Your task to perform on an android device: check the backup settings in the google photos Image 0: 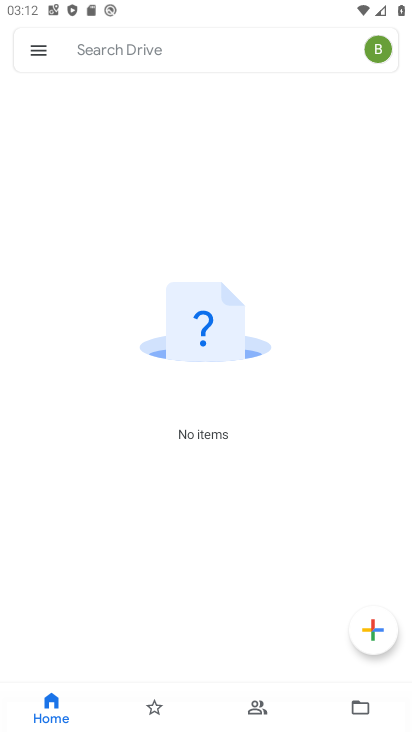
Step 0: press back button
Your task to perform on an android device: check the backup settings in the google photos Image 1: 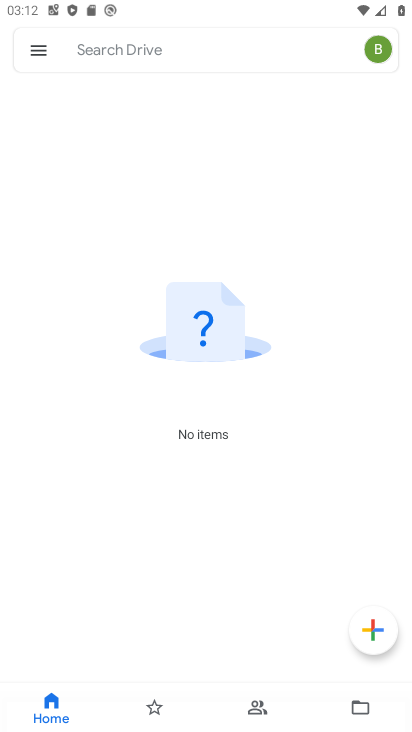
Step 1: press back button
Your task to perform on an android device: check the backup settings in the google photos Image 2: 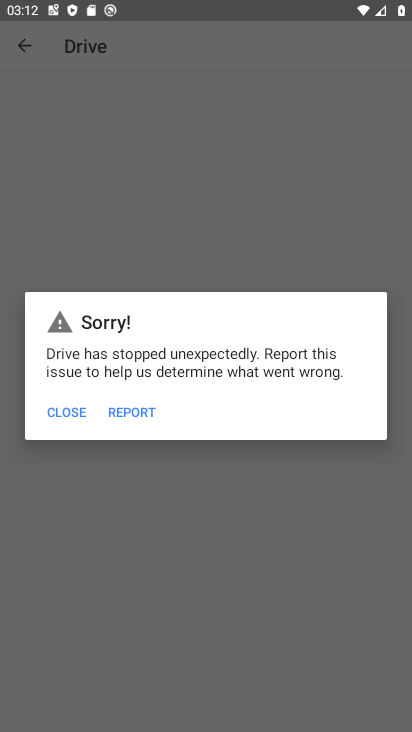
Step 2: click (60, 406)
Your task to perform on an android device: check the backup settings in the google photos Image 3: 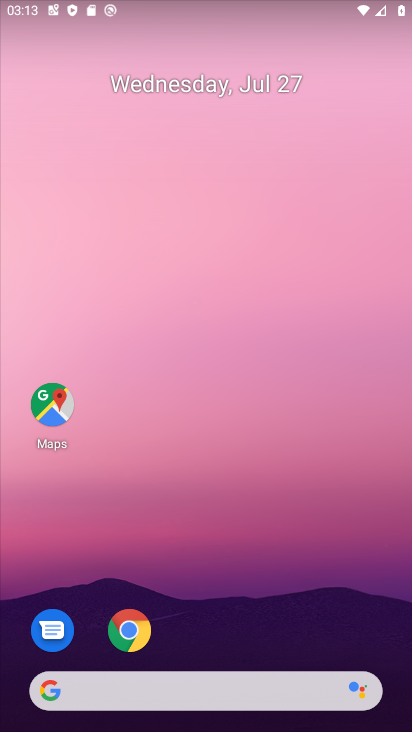
Step 3: drag from (197, 184) to (183, 96)
Your task to perform on an android device: check the backup settings in the google photos Image 4: 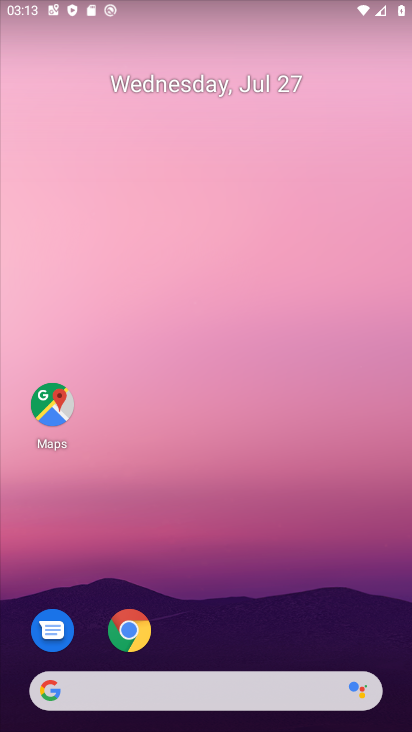
Step 4: drag from (237, 487) to (170, 74)
Your task to perform on an android device: check the backup settings in the google photos Image 5: 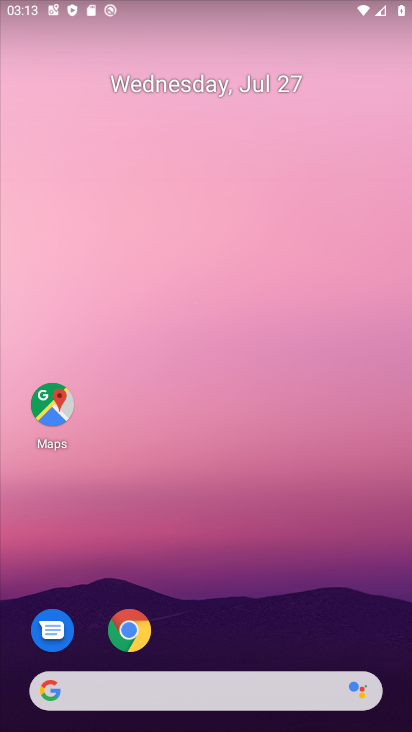
Step 5: drag from (222, 403) to (222, 59)
Your task to perform on an android device: check the backup settings in the google photos Image 6: 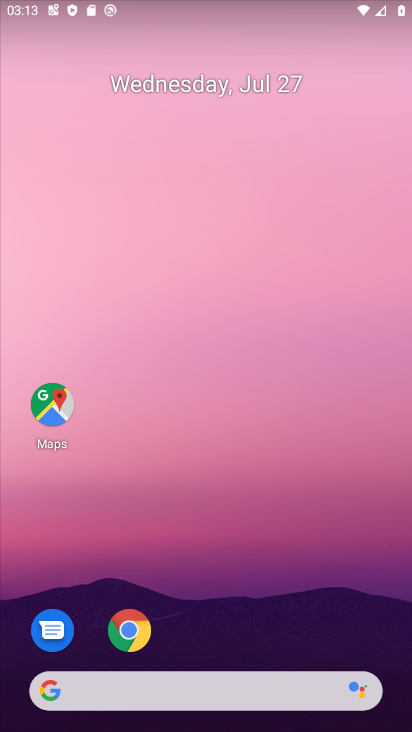
Step 6: drag from (288, 509) to (233, 15)
Your task to perform on an android device: check the backup settings in the google photos Image 7: 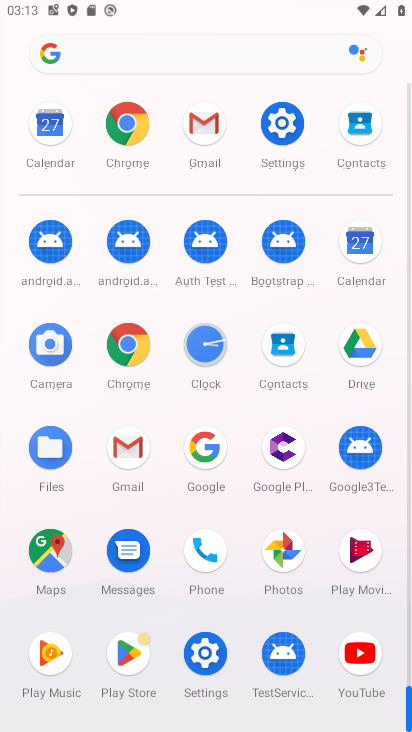
Step 7: drag from (179, 521) to (125, 3)
Your task to perform on an android device: check the backup settings in the google photos Image 8: 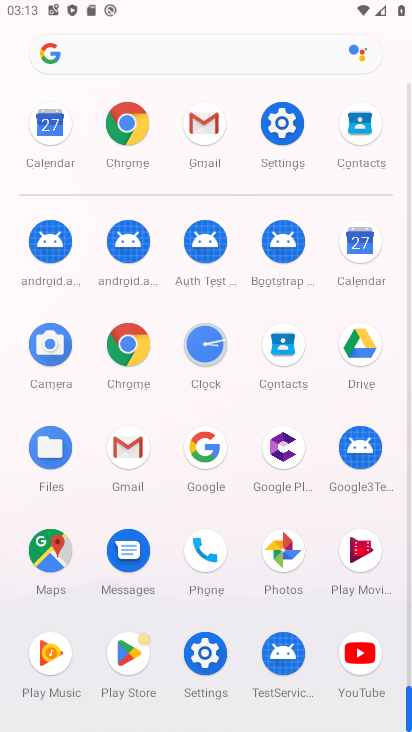
Step 8: click (284, 528)
Your task to perform on an android device: check the backup settings in the google photos Image 9: 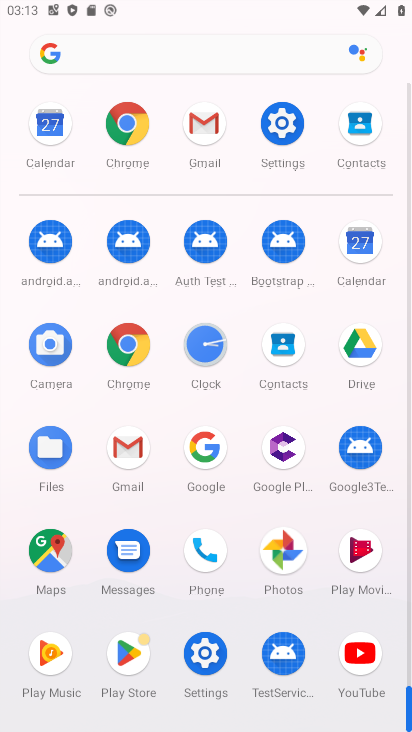
Step 9: click (277, 549)
Your task to perform on an android device: check the backup settings in the google photos Image 10: 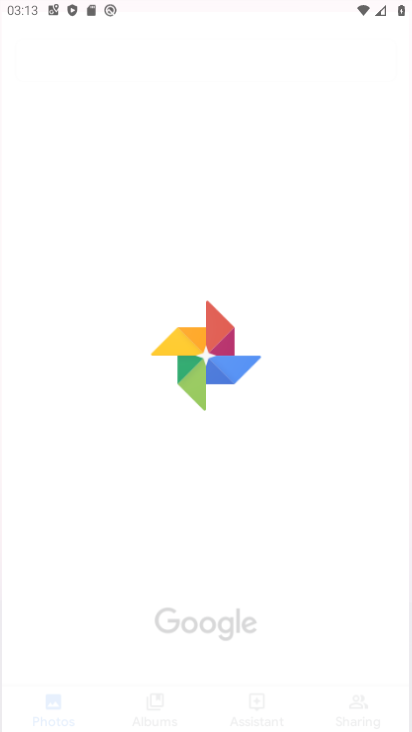
Step 10: click (283, 554)
Your task to perform on an android device: check the backup settings in the google photos Image 11: 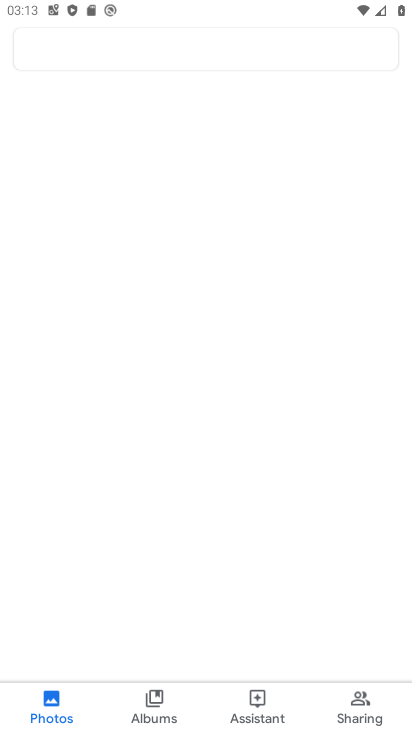
Step 11: click (283, 554)
Your task to perform on an android device: check the backup settings in the google photos Image 12: 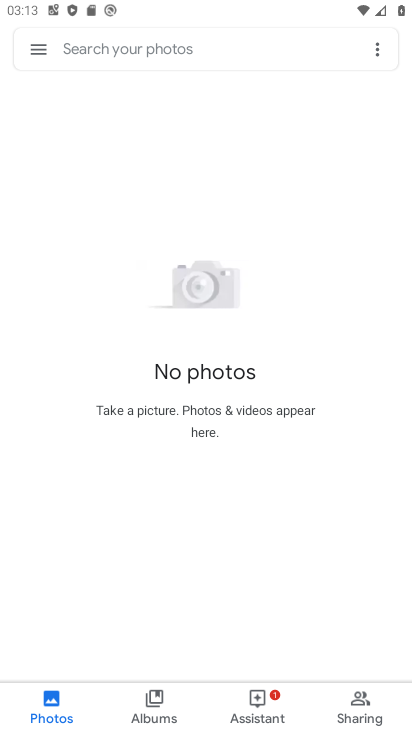
Step 12: click (30, 43)
Your task to perform on an android device: check the backup settings in the google photos Image 13: 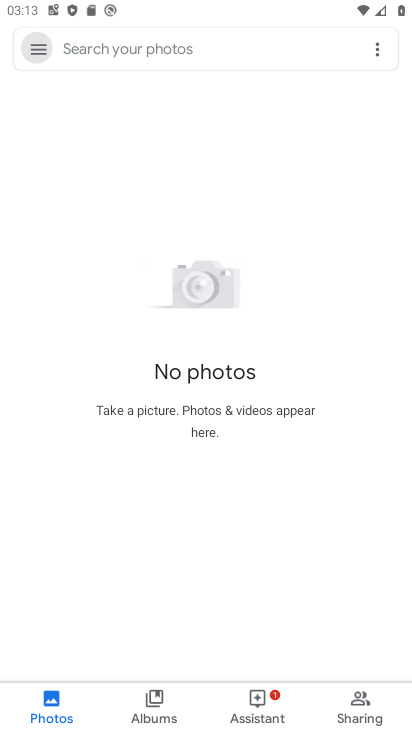
Step 13: click (30, 43)
Your task to perform on an android device: check the backup settings in the google photos Image 14: 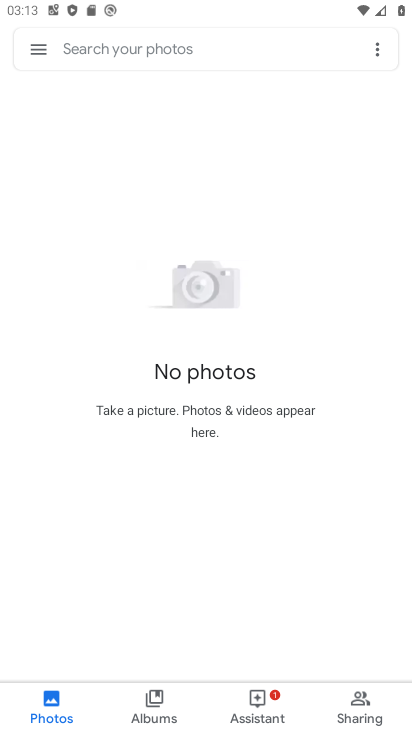
Step 14: drag from (35, 47) to (154, 338)
Your task to perform on an android device: check the backup settings in the google photos Image 15: 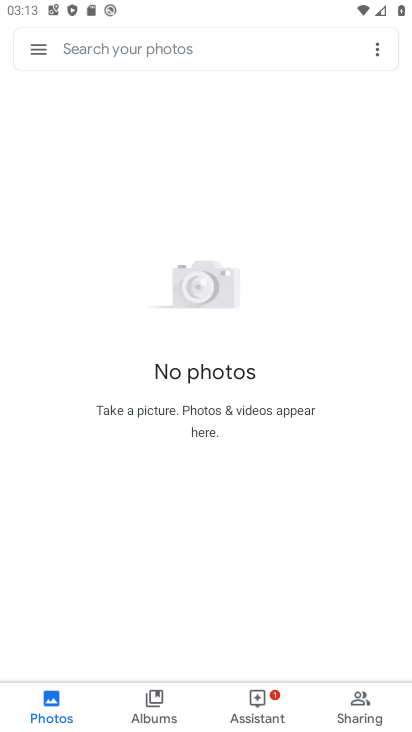
Step 15: click (32, 61)
Your task to perform on an android device: check the backup settings in the google photos Image 16: 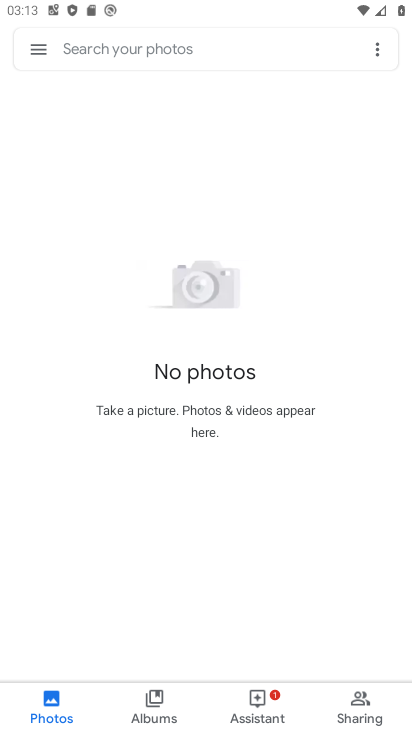
Step 16: click (32, 61)
Your task to perform on an android device: check the backup settings in the google photos Image 17: 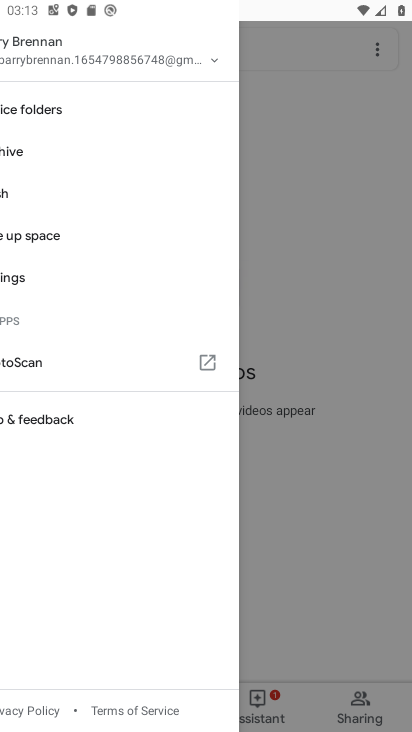
Step 17: click (32, 61)
Your task to perform on an android device: check the backup settings in the google photos Image 18: 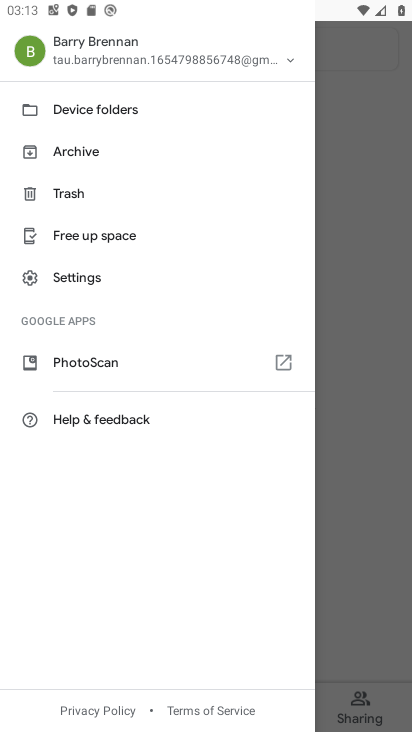
Step 18: click (75, 274)
Your task to perform on an android device: check the backup settings in the google photos Image 19: 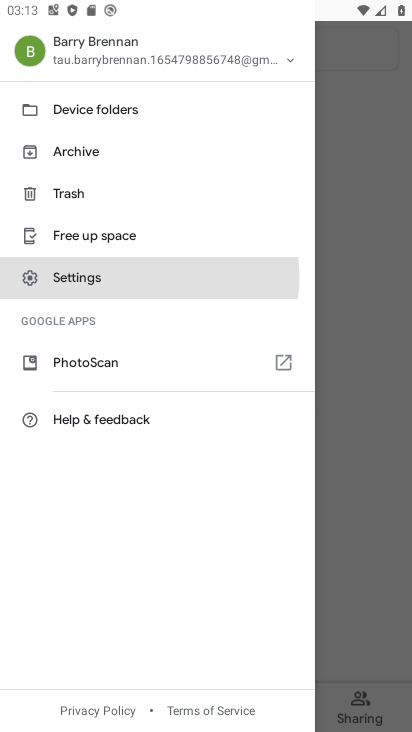
Step 19: click (75, 275)
Your task to perform on an android device: check the backup settings in the google photos Image 20: 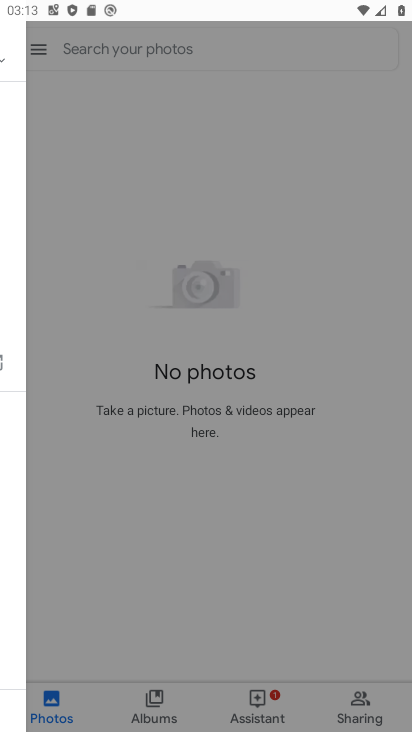
Step 20: click (75, 275)
Your task to perform on an android device: check the backup settings in the google photos Image 21: 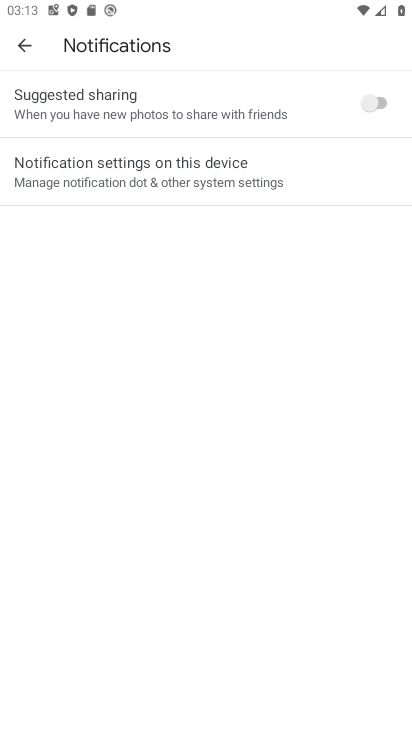
Step 21: click (10, 44)
Your task to perform on an android device: check the backup settings in the google photos Image 22: 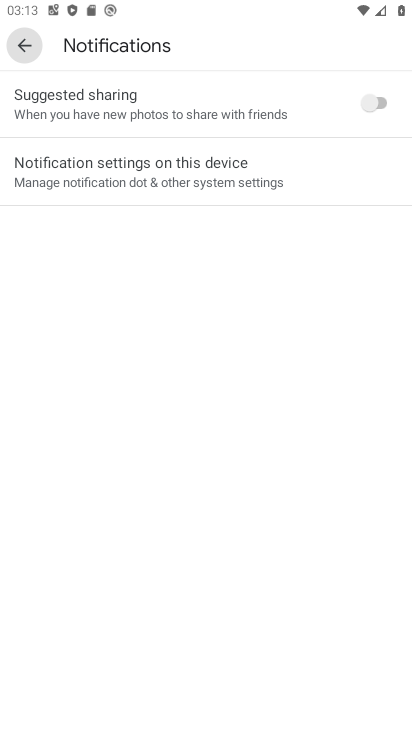
Step 22: click (14, 45)
Your task to perform on an android device: check the backup settings in the google photos Image 23: 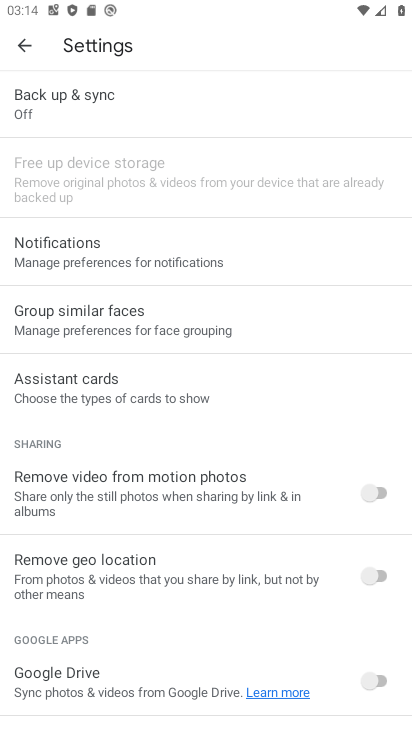
Step 23: click (48, 90)
Your task to perform on an android device: check the backup settings in the google photos Image 24: 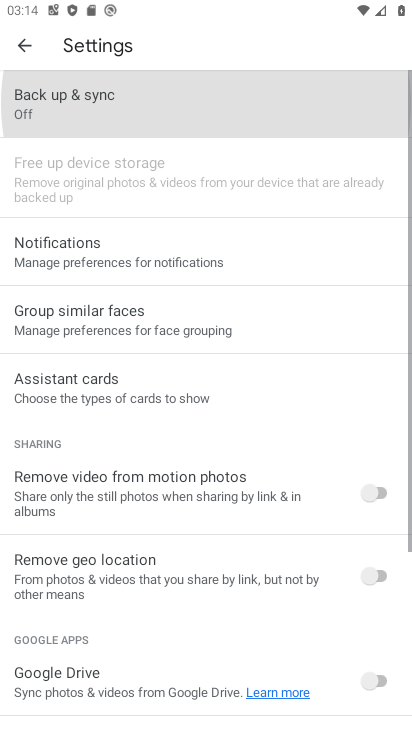
Step 24: click (50, 98)
Your task to perform on an android device: check the backup settings in the google photos Image 25: 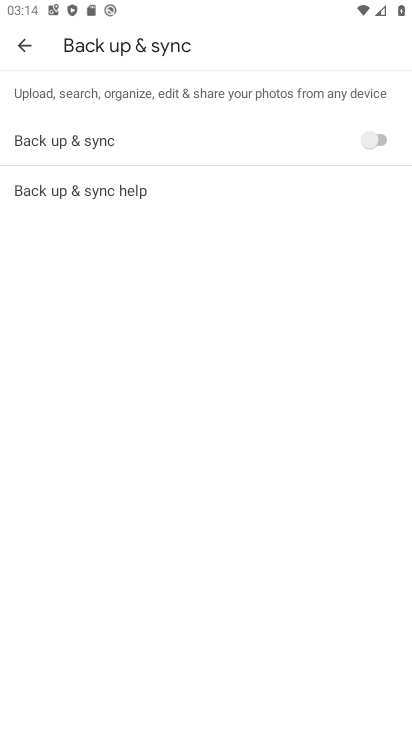
Step 25: click (383, 138)
Your task to perform on an android device: check the backup settings in the google photos Image 26: 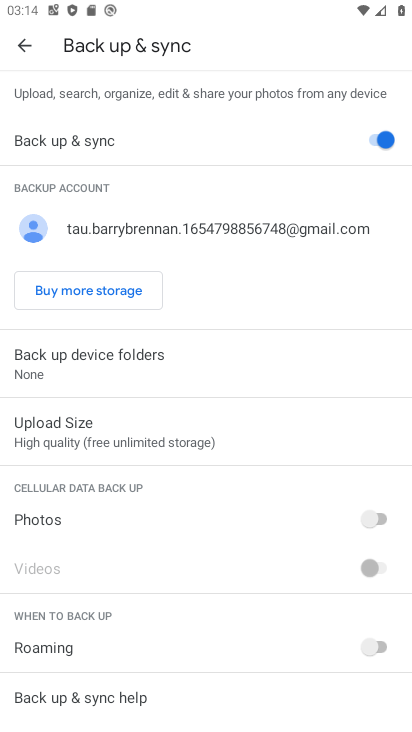
Step 26: task complete